Your task to perform on an android device: Is it going to rain tomorrow? Image 0: 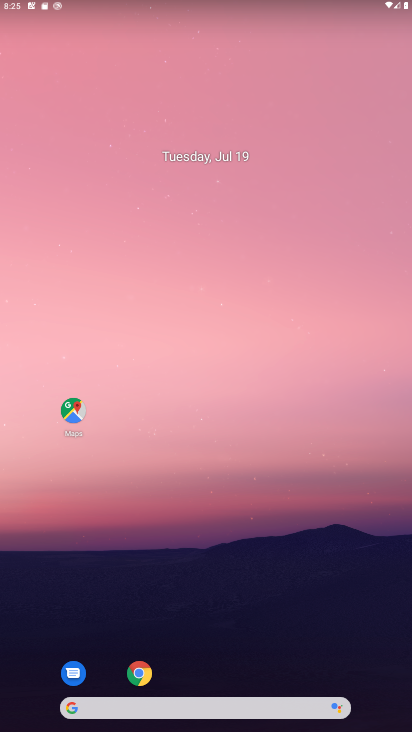
Step 0: drag from (2, 280) to (298, 304)
Your task to perform on an android device: Is it going to rain tomorrow? Image 1: 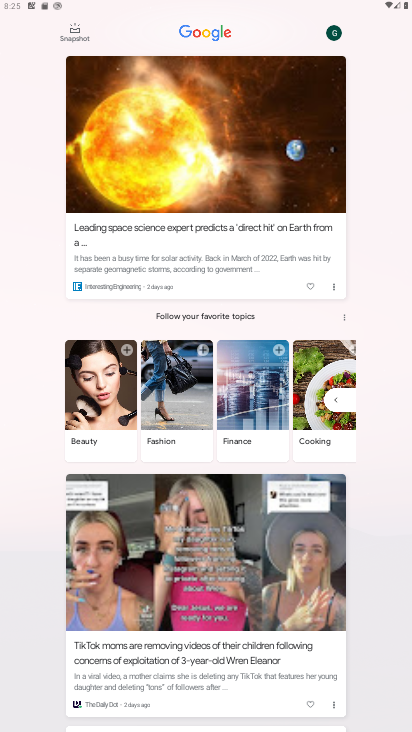
Step 1: drag from (299, 108) to (300, 380)
Your task to perform on an android device: Is it going to rain tomorrow? Image 2: 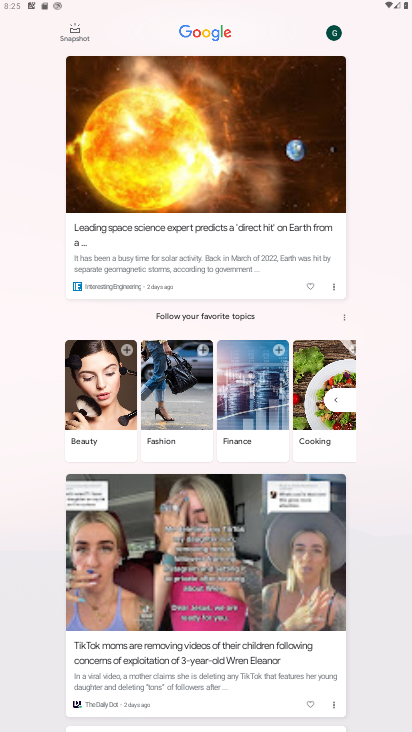
Step 2: drag from (398, 337) to (0, 324)
Your task to perform on an android device: Is it going to rain tomorrow? Image 3: 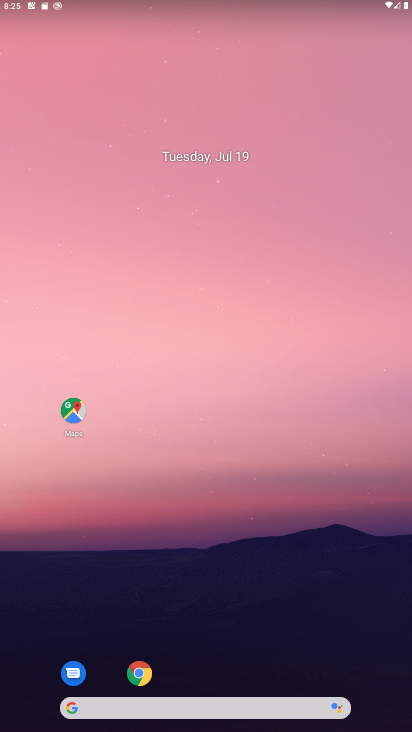
Step 3: click (118, 707)
Your task to perform on an android device: Is it going to rain tomorrow? Image 4: 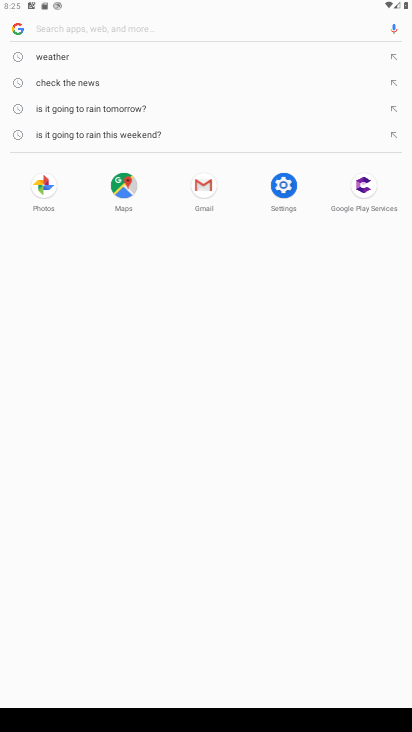
Step 4: click (45, 58)
Your task to perform on an android device: Is it going to rain tomorrow? Image 5: 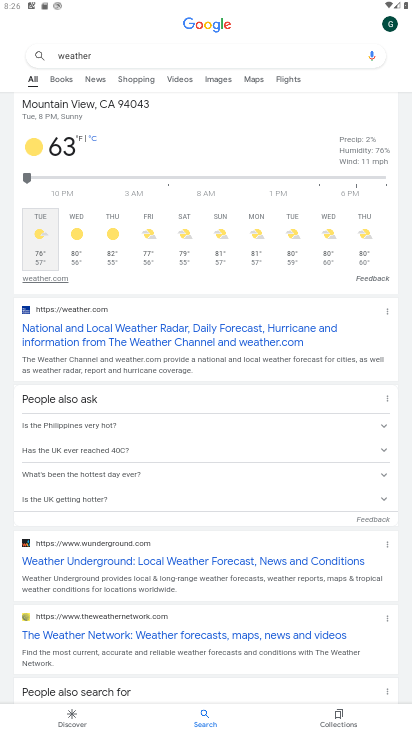
Step 5: task complete